Your task to perform on an android device: Show me popular videos on Youtube Image 0: 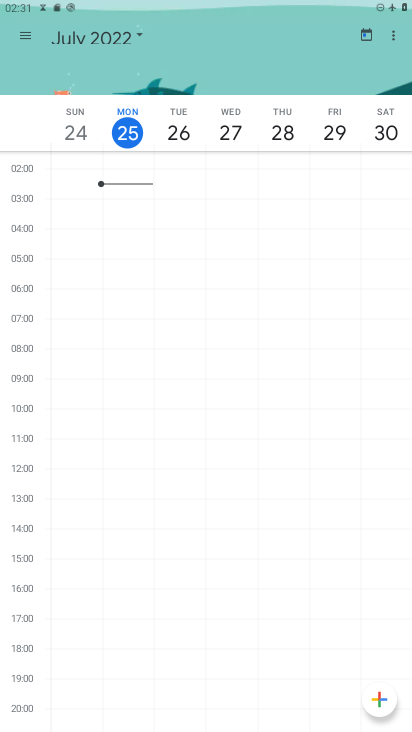
Step 0: press home button
Your task to perform on an android device: Show me popular videos on Youtube Image 1: 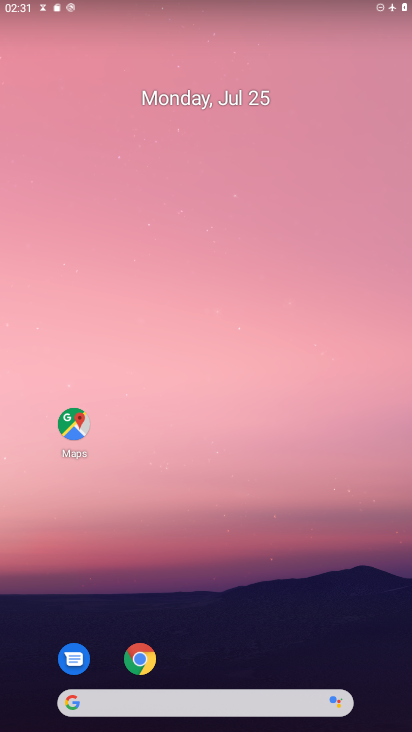
Step 1: drag from (293, 636) to (276, 106)
Your task to perform on an android device: Show me popular videos on Youtube Image 2: 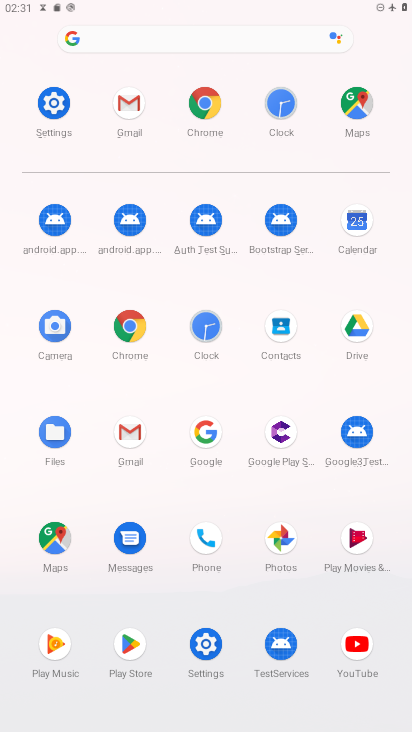
Step 2: click (362, 645)
Your task to perform on an android device: Show me popular videos on Youtube Image 3: 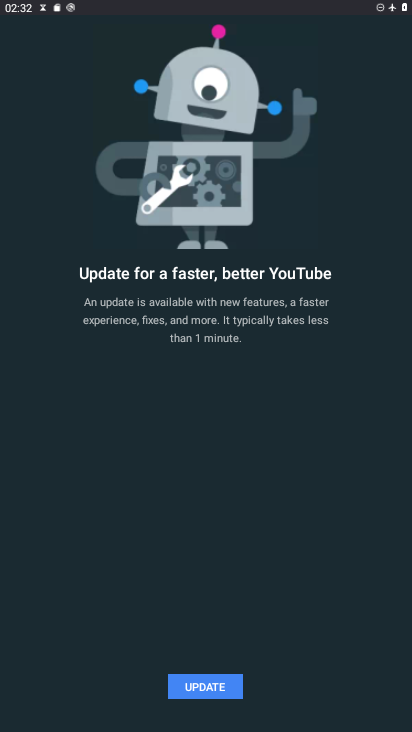
Step 3: task complete